Your task to perform on an android device: uninstall "Etsy: Buy & Sell Unique Items" Image 0: 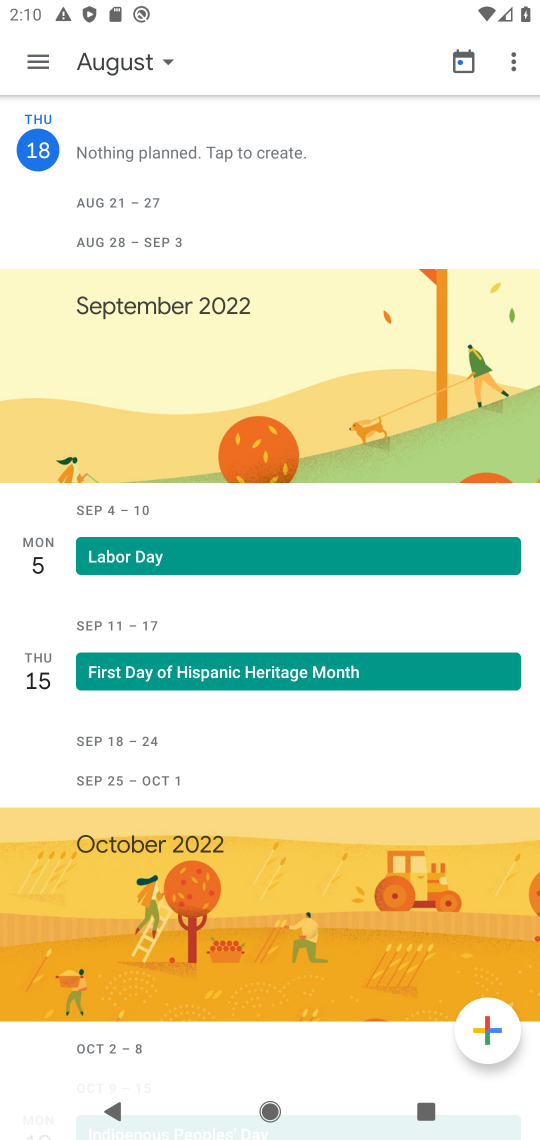
Step 0: press home button
Your task to perform on an android device: uninstall "Etsy: Buy & Sell Unique Items" Image 1: 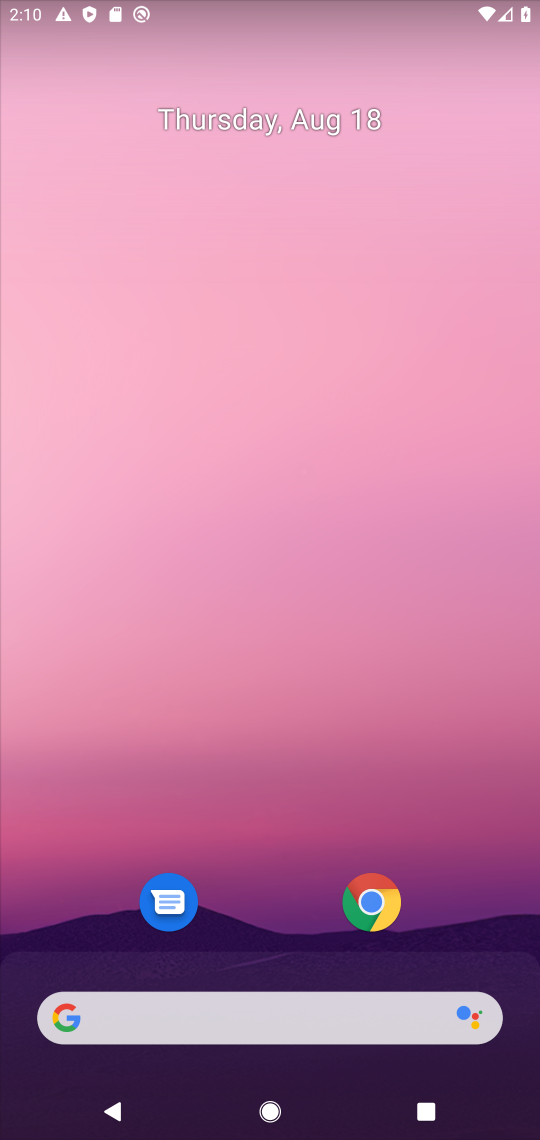
Step 1: drag from (445, 949) to (313, 188)
Your task to perform on an android device: uninstall "Etsy: Buy & Sell Unique Items" Image 2: 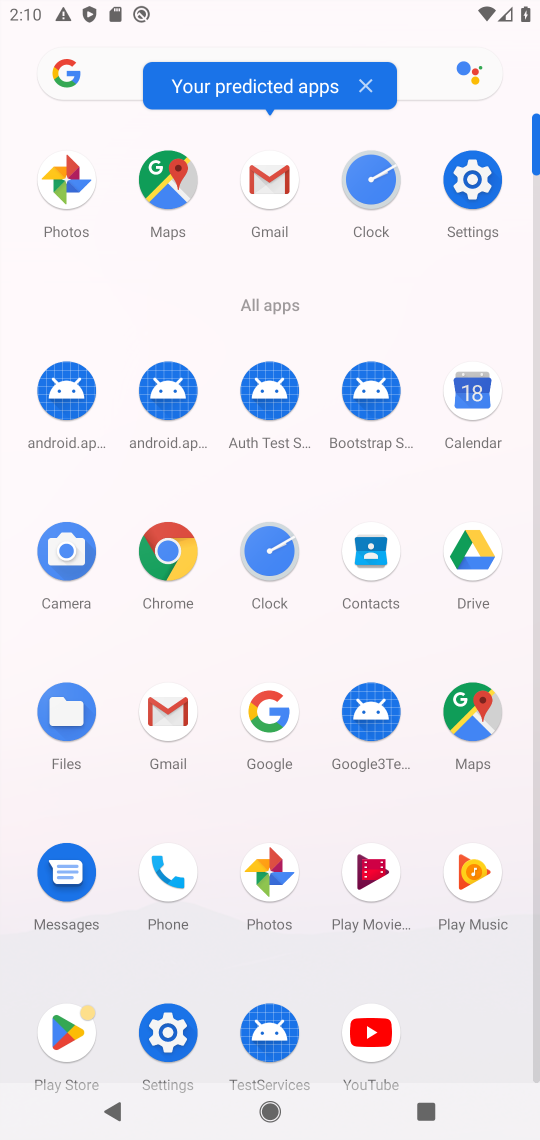
Step 2: click (61, 1037)
Your task to perform on an android device: uninstall "Etsy: Buy & Sell Unique Items" Image 3: 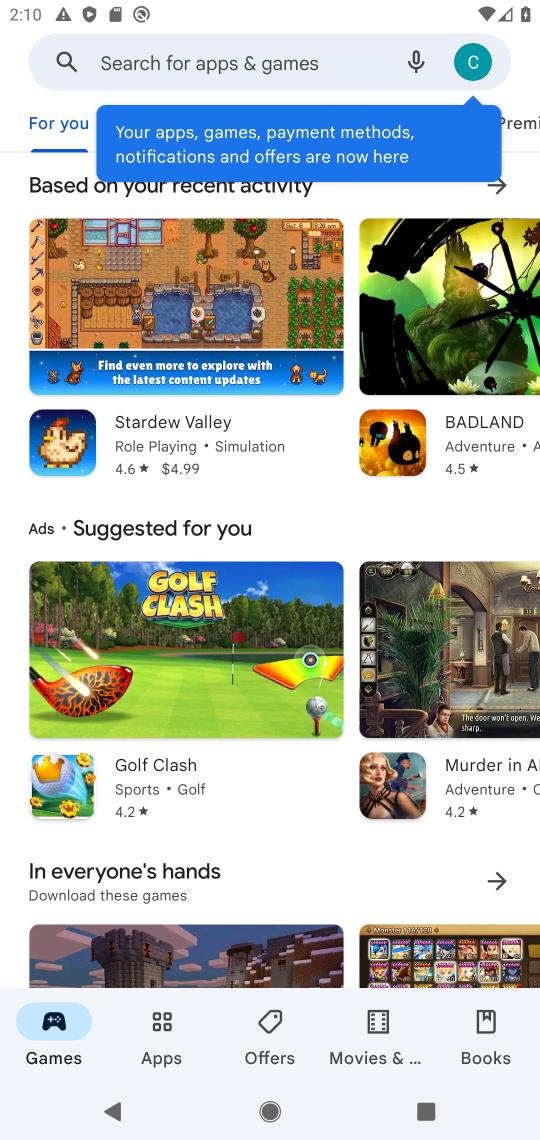
Step 3: click (324, 66)
Your task to perform on an android device: uninstall "Etsy: Buy & Sell Unique Items" Image 4: 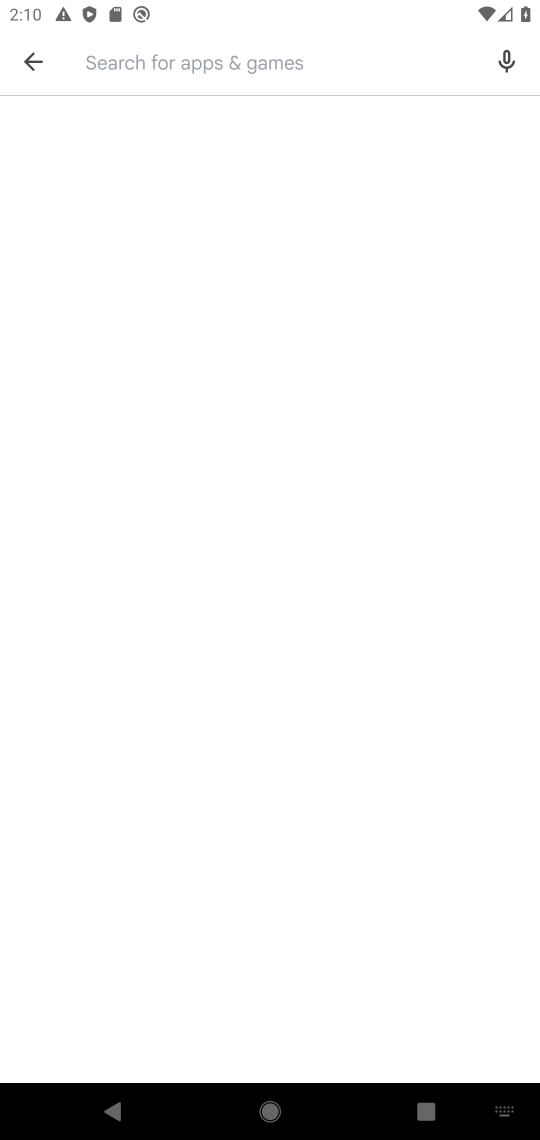
Step 4: type "etsy"
Your task to perform on an android device: uninstall "Etsy: Buy & Sell Unique Items" Image 5: 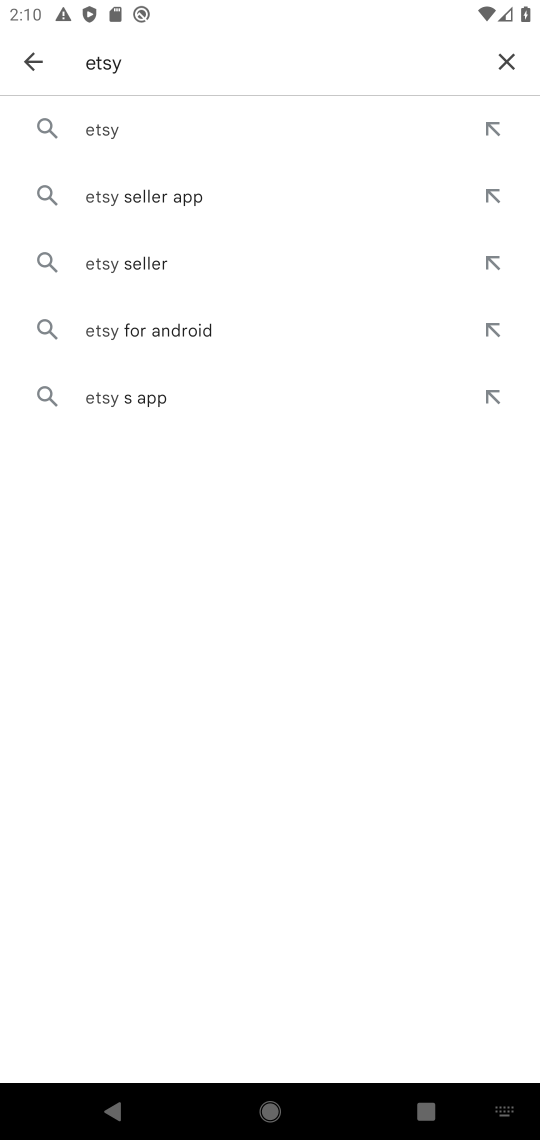
Step 5: click (131, 120)
Your task to perform on an android device: uninstall "Etsy: Buy & Sell Unique Items" Image 6: 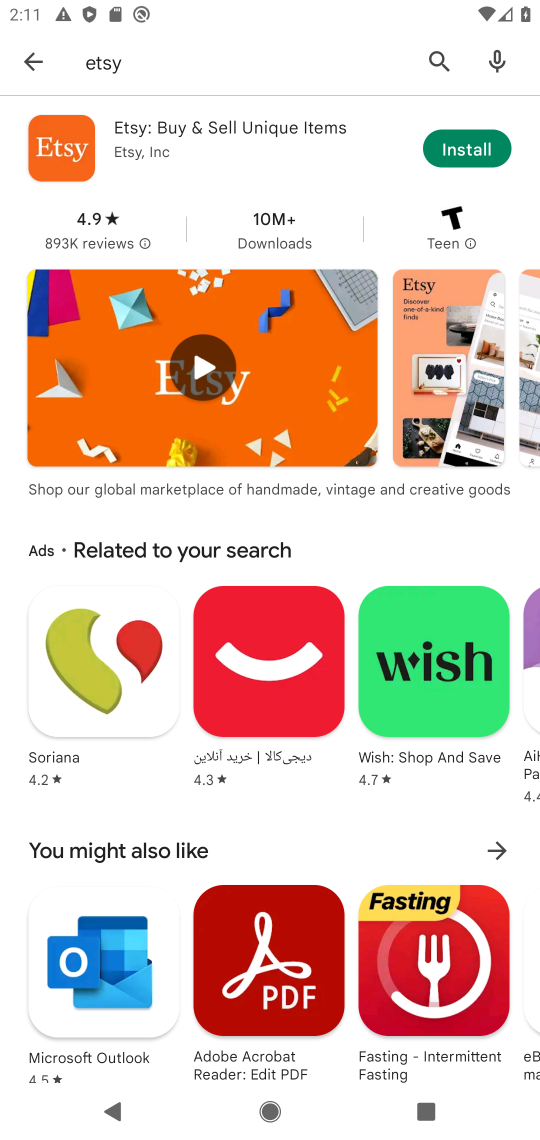
Step 6: task complete